Your task to perform on an android device: manage bookmarks in the chrome app Image 0: 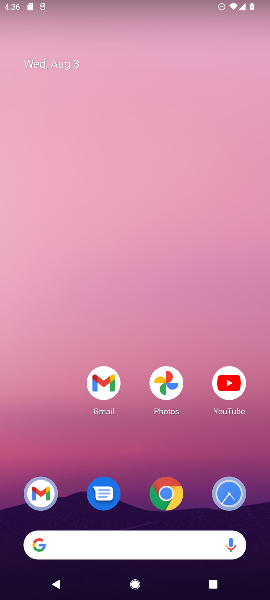
Step 0: press home button
Your task to perform on an android device: manage bookmarks in the chrome app Image 1: 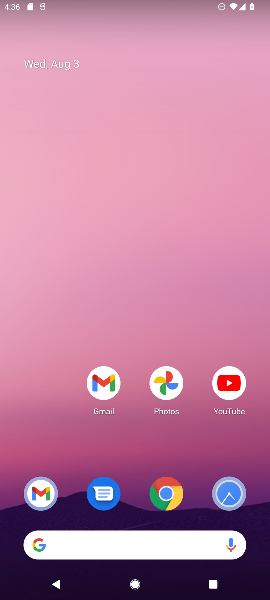
Step 1: drag from (62, 450) to (52, 82)
Your task to perform on an android device: manage bookmarks in the chrome app Image 2: 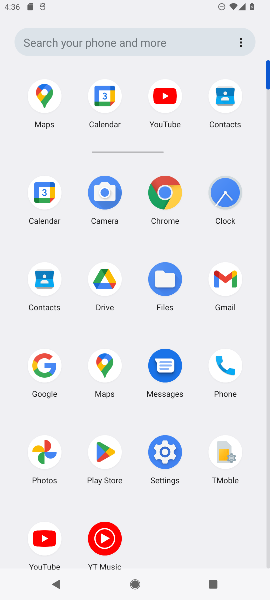
Step 2: click (168, 201)
Your task to perform on an android device: manage bookmarks in the chrome app Image 3: 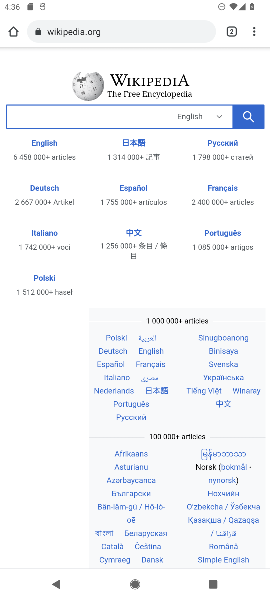
Step 3: click (255, 33)
Your task to perform on an android device: manage bookmarks in the chrome app Image 4: 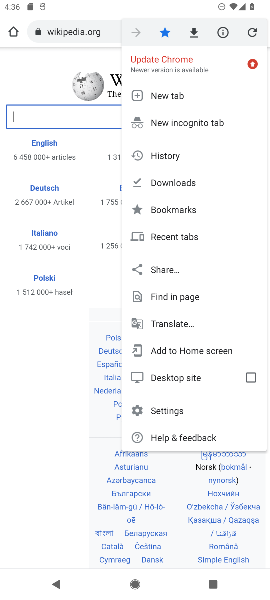
Step 4: click (186, 211)
Your task to perform on an android device: manage bookmarks in the chrome app Image 5: 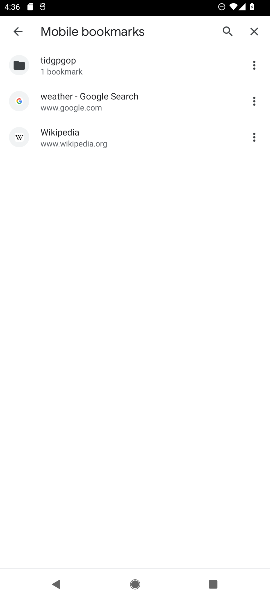
Step 5: click (255, 102)
Your task to perform on an android device: manage bookmarks in the chrome app Image 6: 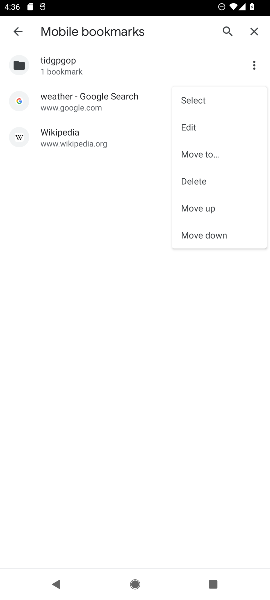
Step 6: click (197, 129)
Your task to perform on an android device: manage bookmarks in the chrome app Image 7: 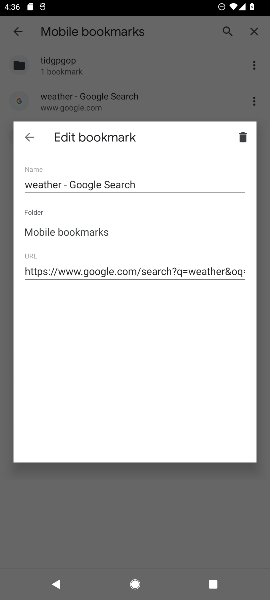
Step 7: click (156, 184)
Your task to perform on an android device: manage bookmarks in the chrome app Image 8: 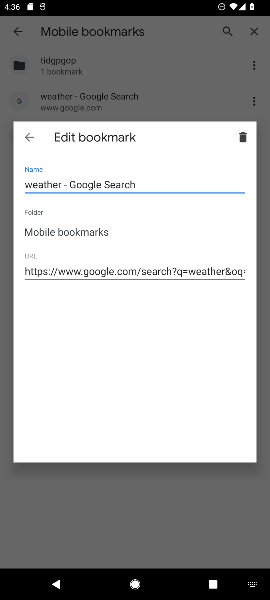
Step 8: type "h"
Your task to perform on an android device: manage bookmarks in the chrome app Image 9: 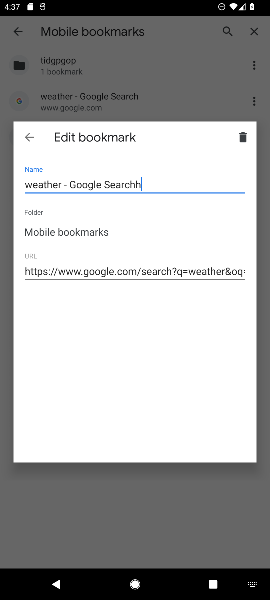
Step 9: click (30, 133)
Your task to perform on an android device: manage bookmarks in the chrome app Image 10: 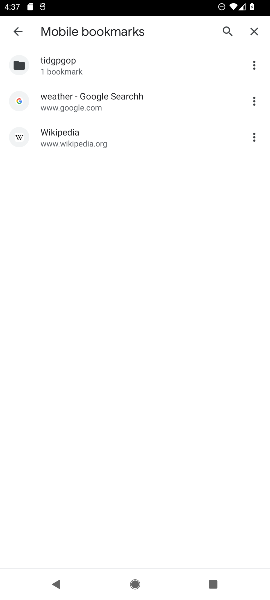
Step 10: task complete